Your task to perform on an android device: Open Google Chrome and open the bookmarks view Image 0: 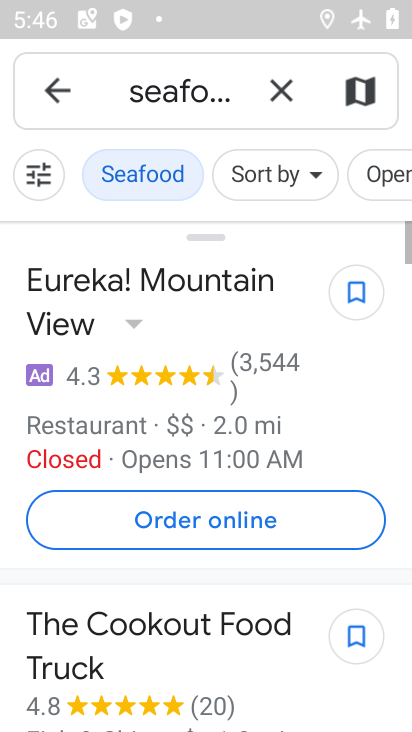
Step 0: press home button
Your task to perform on an android device: Open Google Chrome and open the bookmarks view Image 1: 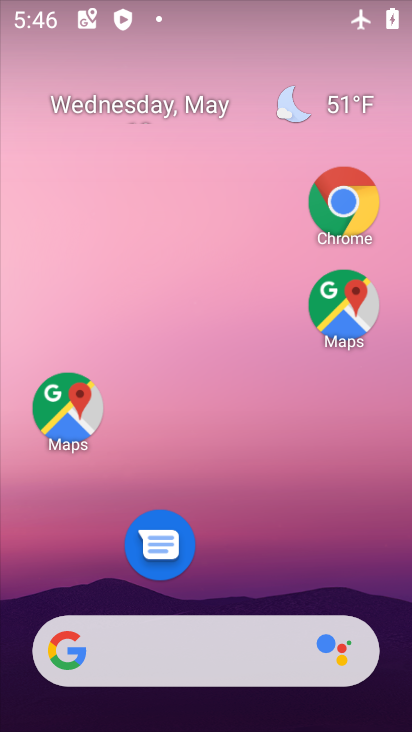
Step 1: click (357, 236)
Your task to perform on an android device: Open Google Chrome and open the bookmarks view Image 2: 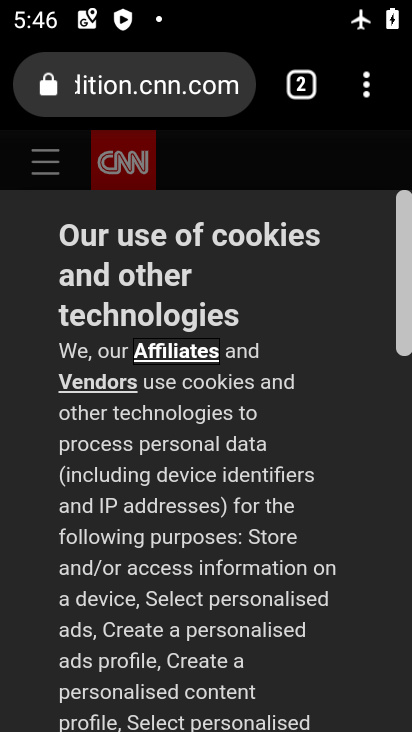
Step 2: click (360, 77)
Your task to perform on an android device: Open Google Chrome and open the bookmarks view Image 3: 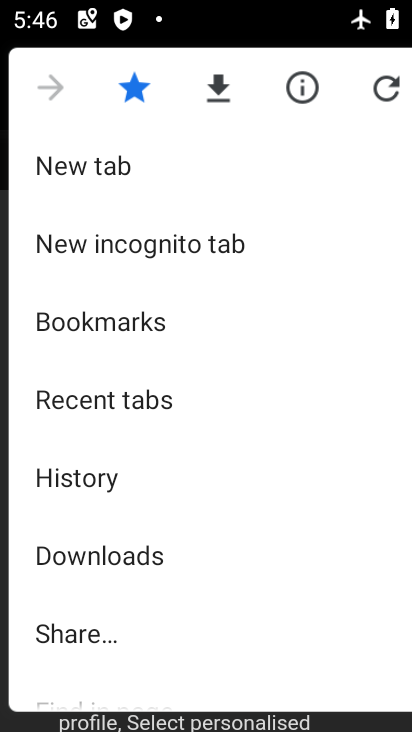
Step 3: drag from (154, 538) to (143, 139)
Your task to perform on an android device: Open Google Chrome and open the bookmarks view Image 4: 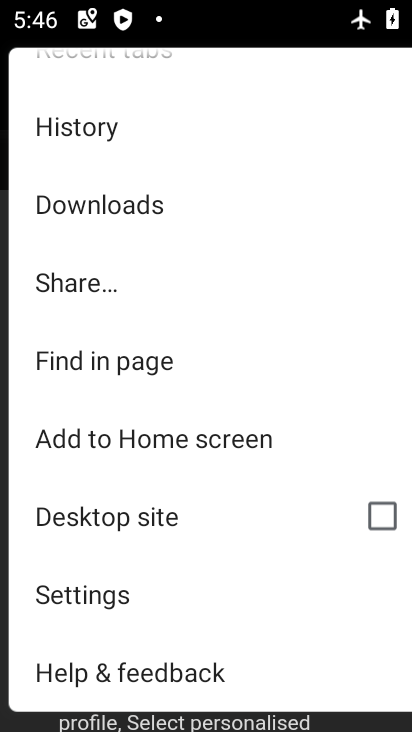
Step 4: drag from (143, 156) to (121, 626)
Your task to perform on an android device: Open Google Chrome and open the bookmarks view Image 5: 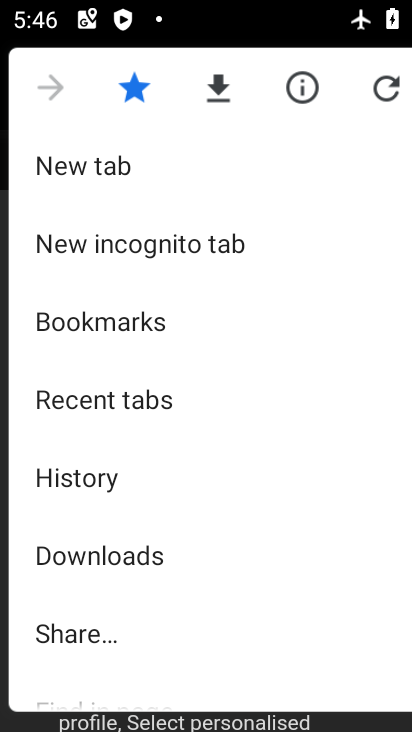
Step 5: click (108, 313)
Your task to perform on an android device: Open Google Chrome and open the bookmarks view Image 6: 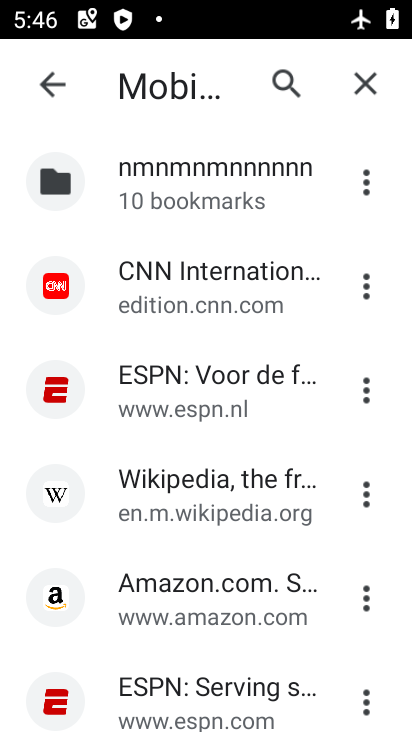
Step 6: task complete